Your task to perform on an android device: change timer sound Image 0: 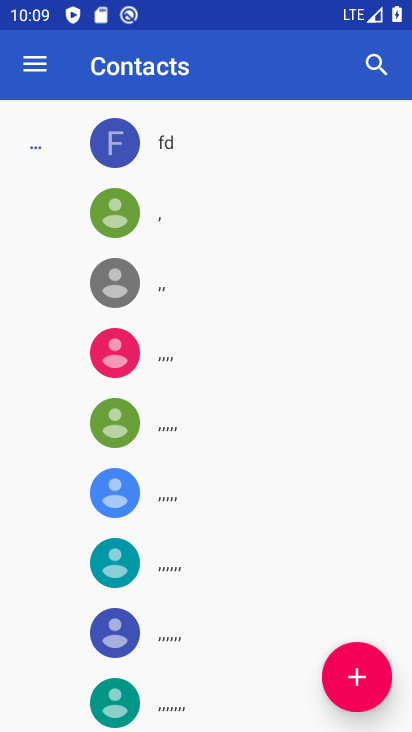
Step 0: press home button
Your task to perform on an android device: change timer sound Image 1: 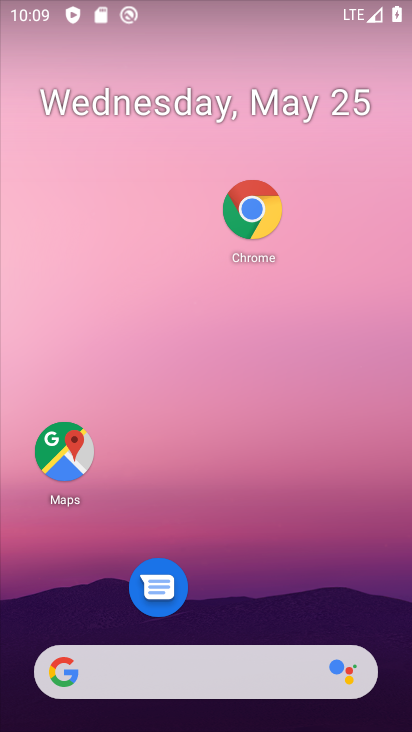
Step 1: drag from (221, 622) to (410, 2)
Your task to perform on an android device: change timer sound Image 2: 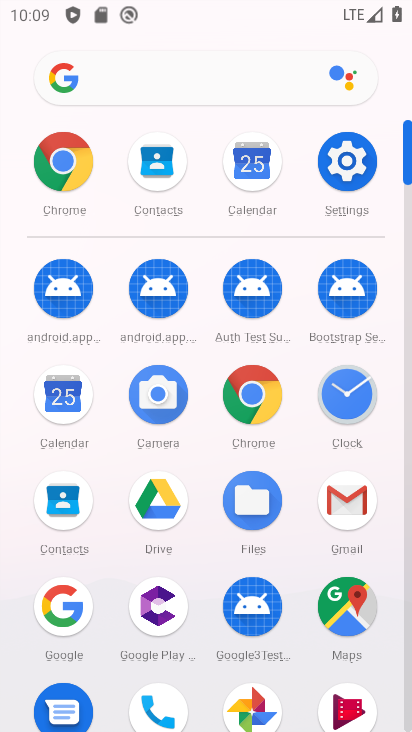
Step 2: click (341, 406)
Your task to perform on an android device: change timer sound Image 3: 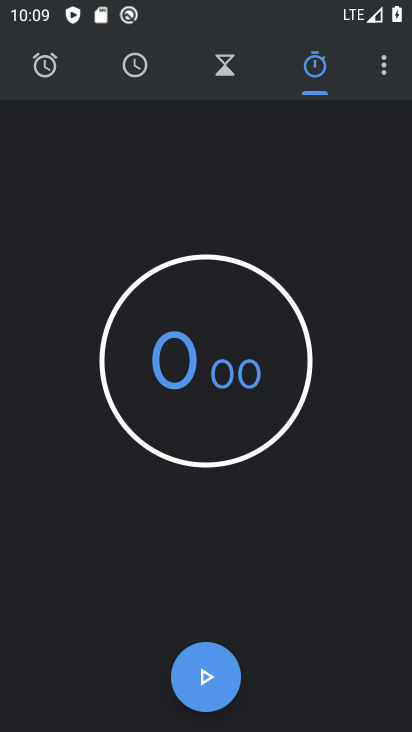
Step 3: click (390, 71)
Your task to perform on an android device: change timer sound Image 4: 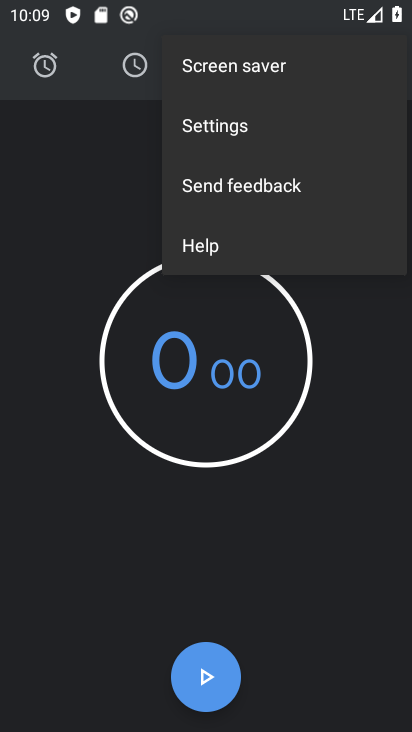
Step 4: click (210, 131)
Your task to perform on an android device: change timer sound Image 5: 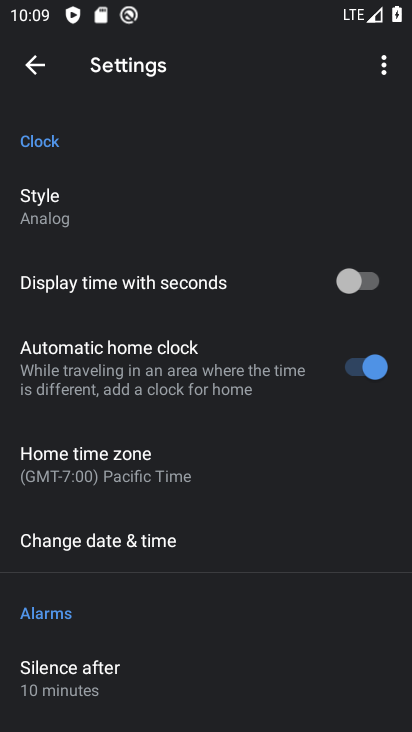
Step 5: drag from (161, 544) to (206, 135)
Your task to perform on an android device: change timer sound Image 6: 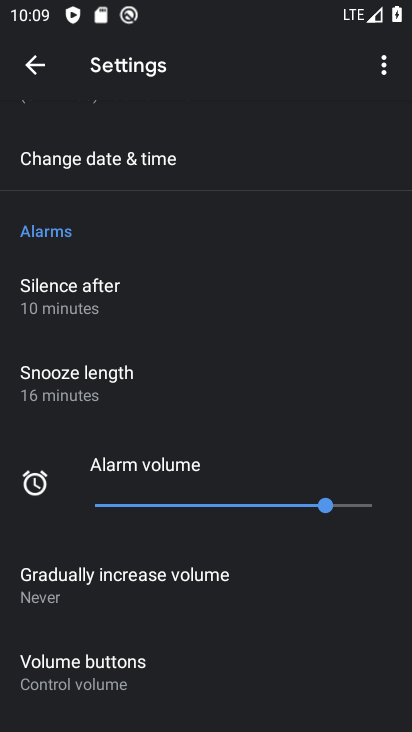
Step 6: drag from (180, 577) to (192, 288)
Your task to perform on an android device: change timer sound Image 7: 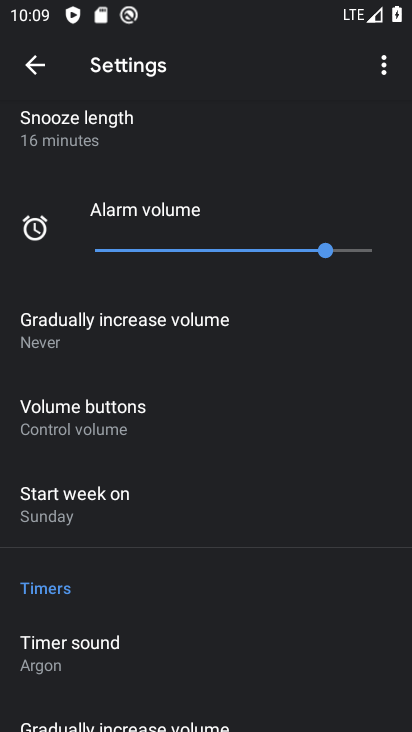
Step 7: drag from (135, 632) to (165, 498)
Your task to perform on an android device: change timer sound Image 8: 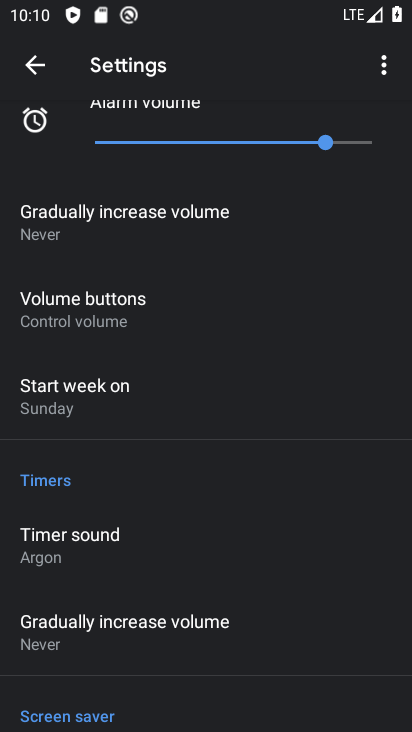
Step 8: click (92, 547)
Your task to perform on an android device: change timer sound Image 9: 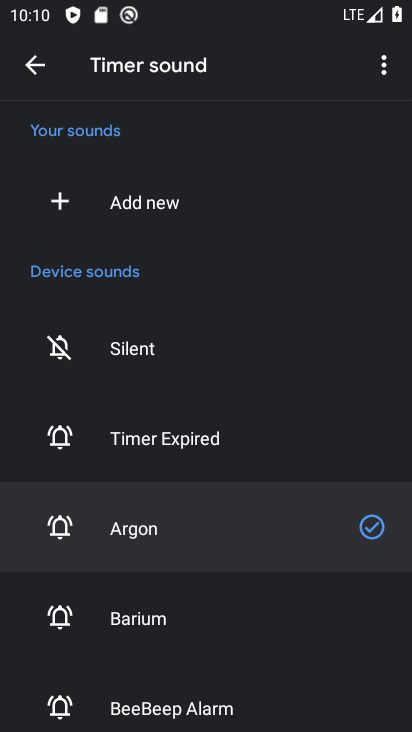
Step 9: click (174, 440)
Your task to perform on an android device: change timer sound Image 10: 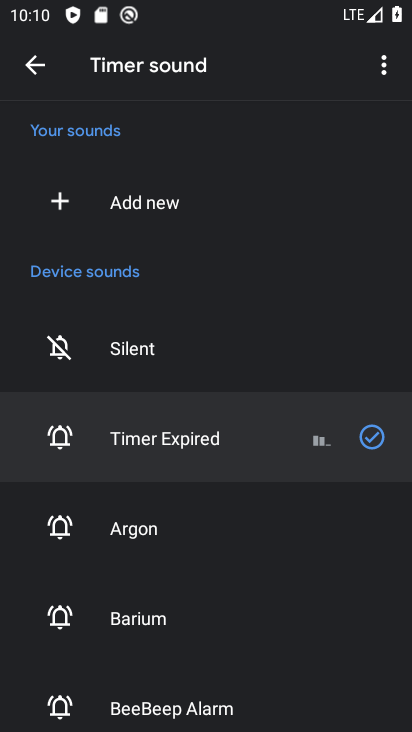
Step 10: task complete